Your task to perform on an android device: Open accessibility settings Image 0: 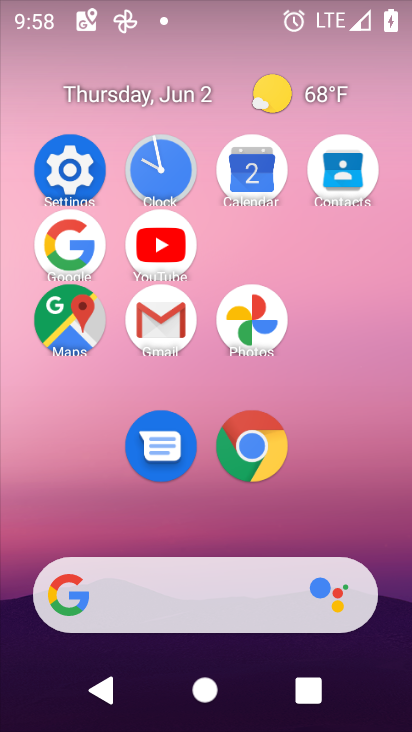
Step 0: click (47, 178)
Your task to perform on an android device: Open accessibility settings Image 1: 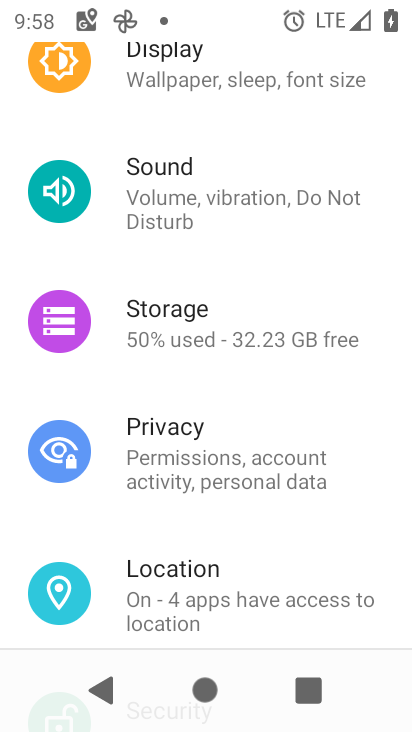
Step 1: drag from (280, 537) to (255, 207)
Your task to perform on an android device: Open accessibility settings Image 2: 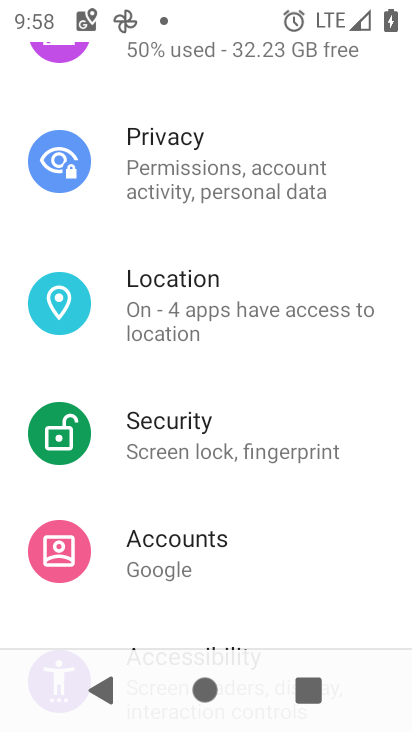
Step 2: drag from (251, 521) to (303, 221)
Your task to perform on an android device: Open accessibility settings Image 3: 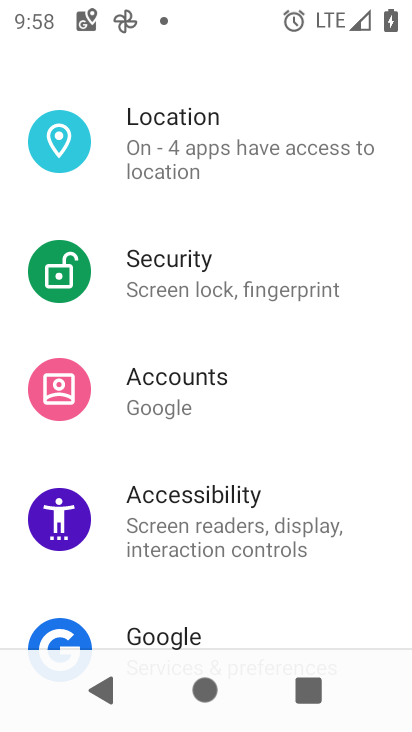
Step 3: click (250, 508)
Your task to perform on an android device: Open accessibility settings Image 4: 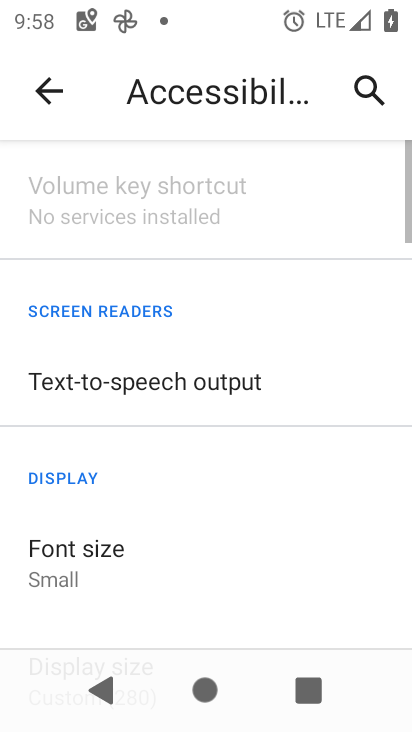
Step 4: task complete